Your task to perform on an android device: Check the news Image 0: 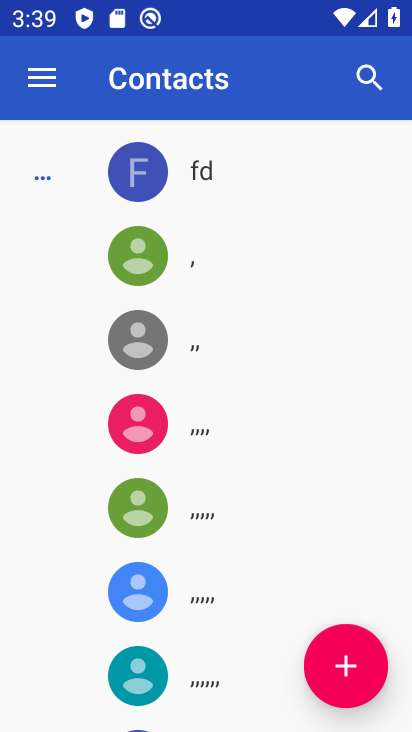
Step 0: press back button
Your task to perform on an android device: Check the news Image 1: 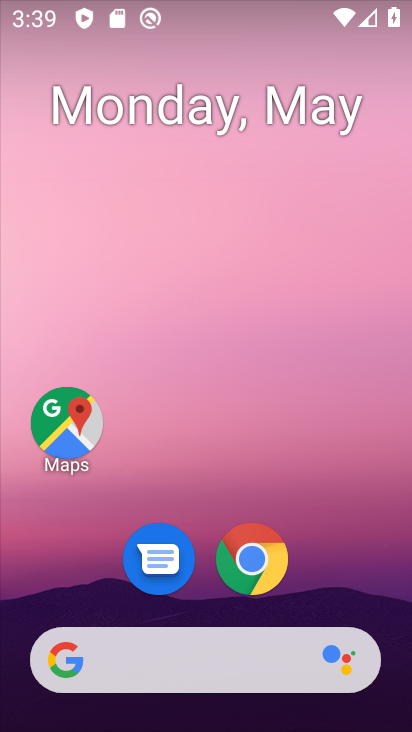
Step 1: drag from (67, 239) to (399, 486)
Your task to perform on an android device: Check the news Image 2: 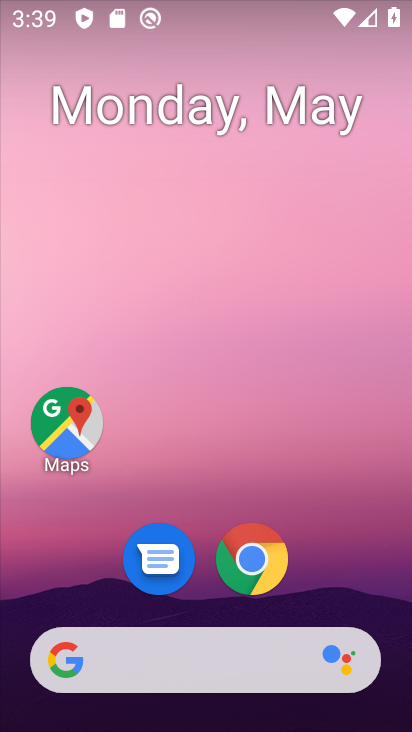
Step 2: drag from (4, 221) to (411, 429)
Your task to perform on an android device: Check the news Image 3: 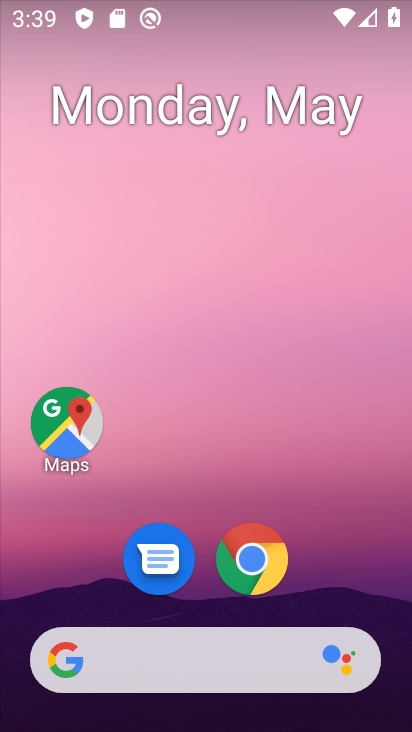
Step 3: drag from (0, 166) to (406, 404)
Your task to perform on an android device: Check the news Image 4: 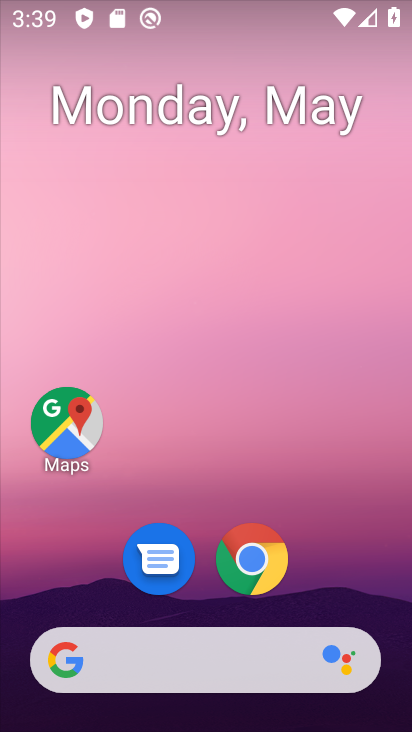
Step 4: drag from (133, 327) to (395, 520)
Your task to perform on an android device: Check the news Image 5: 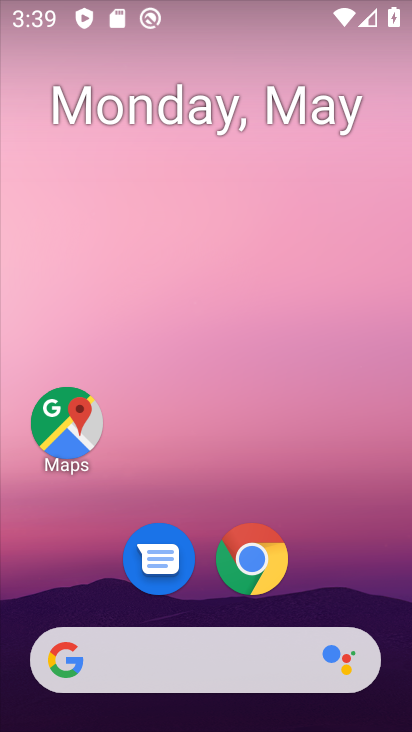
Step 5: drag from (7, 252) to (382, 494)
Your task to perform on an android device: Check the news Image 6: 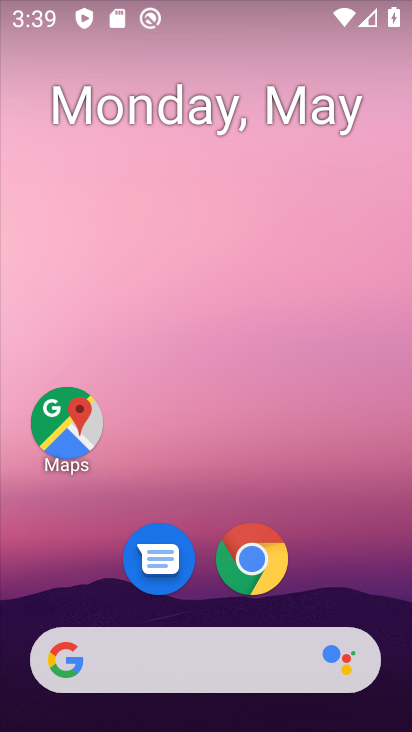
Step 6: drag from (15, 233) to (208, 465)
Your task to perform on an android device: Check the news Image 7: 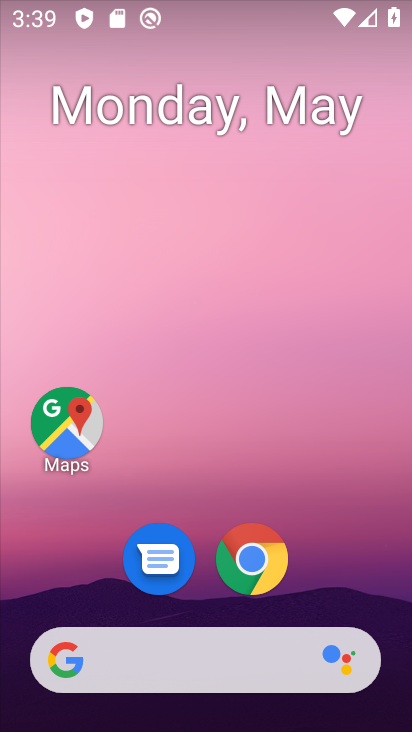
Step 7: drag from (22, 211) to (349, 457)
Your task to perform on an android device: Check the news Image 8: 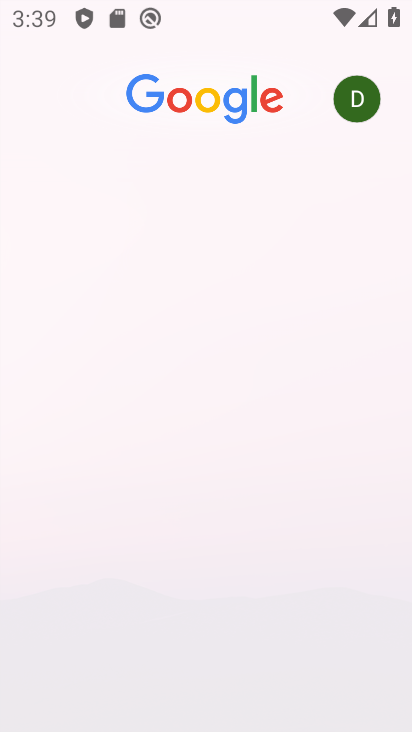
Step 8: drag from (6, 192) to (339, 500)
Your task to perform on an android device: Check the news Image 9: 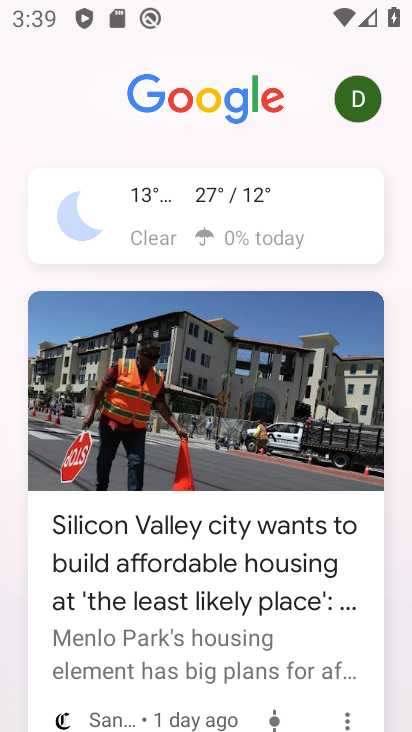
Step 9: drag from (217, 587) to (228, 197)
Your task to perform on an android device: Check the news Image 10: 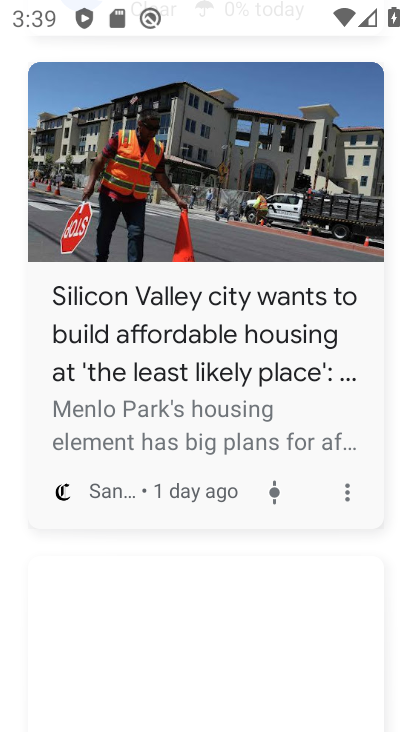
Step 10: drag from (225, 393) to (216, 343)
Your task to perform on an android device: Check the news Image 11: 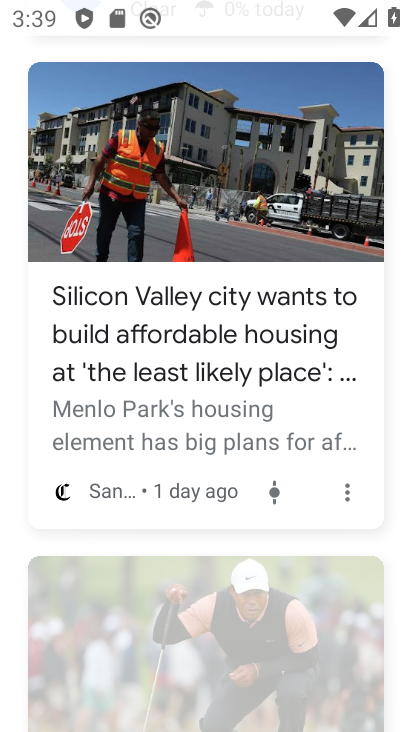
Step 11: drag from (208, 495) to (233, 257)
Your task to perform on an android device: Check the news Image 12: 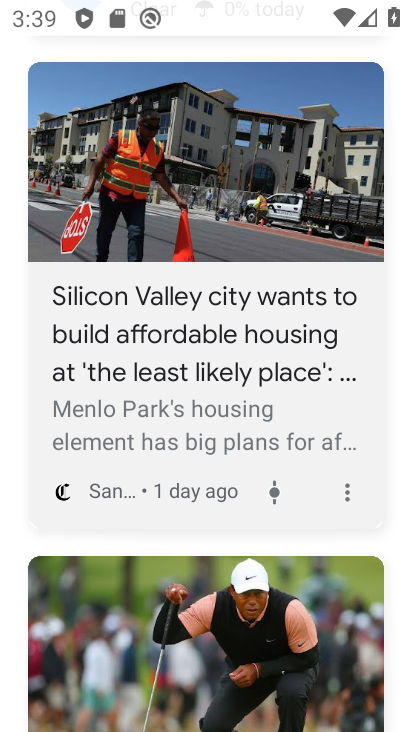
Step 12: drag from (227, 386) to (227, 275)
Your task to perform on an android device: Check the news Image 13: 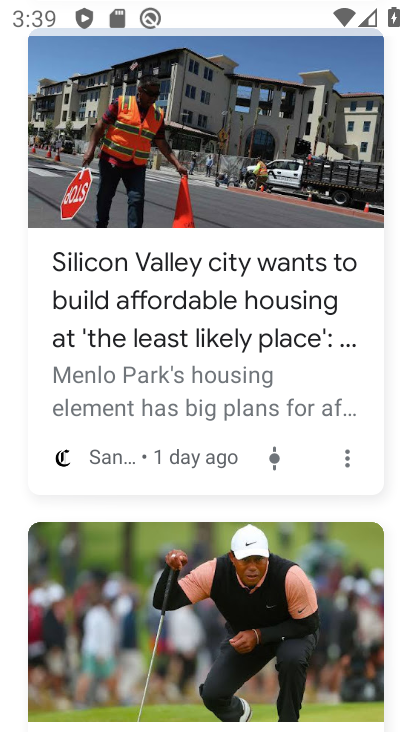
Step 13: drag from (215, 486) to (233, 176)
Your task to perform on an android device: Check the news Image 14: 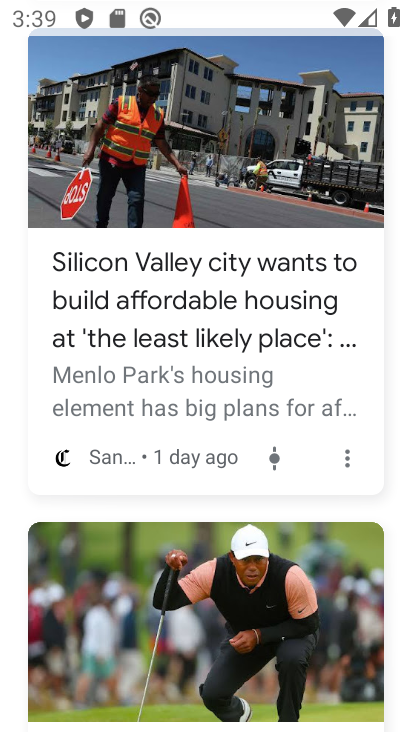
Step 14: drag from (227, 517) to (188, 243)
Your task to perform on an android device: Check the news Image 15: 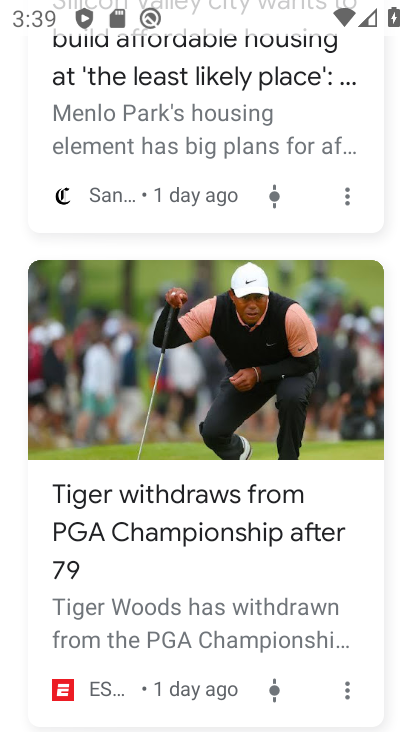
Step 15: drag from (224, 553) to (238, 281)
Your task to perform on an android device: Check the news Image 16: 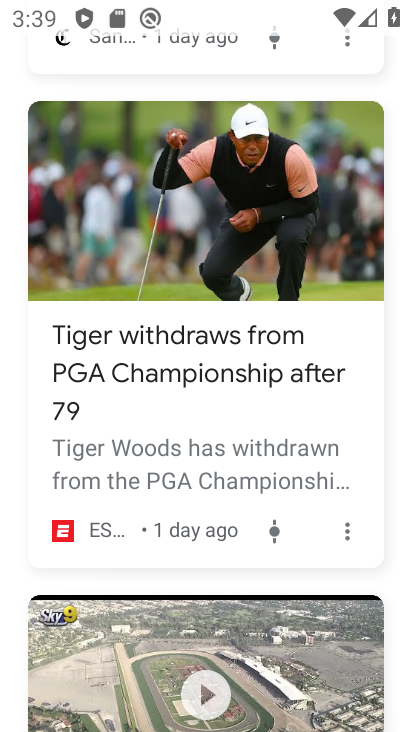
Step 16: drag from (247, 315) to (247, 238)
Your task to perform on an android device: Check the news Image 17: 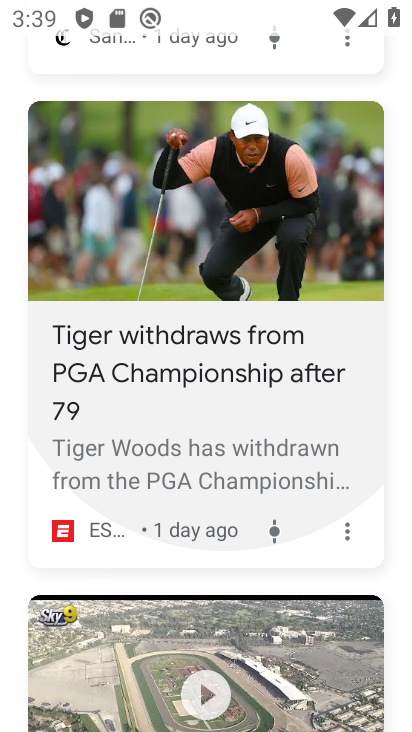
Step 17: click (290, 268)
Your task to perform on an android device: Check the news Image 18: 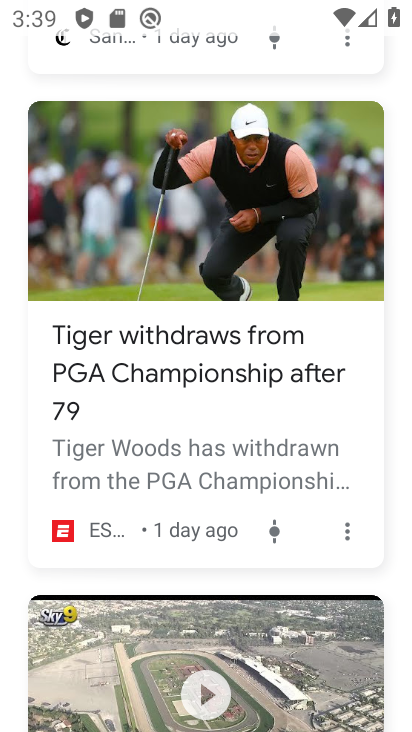
Step 18: drag from (258, 518) to (338, 295)
Your task to perform on an android device: Check the news Image 19: 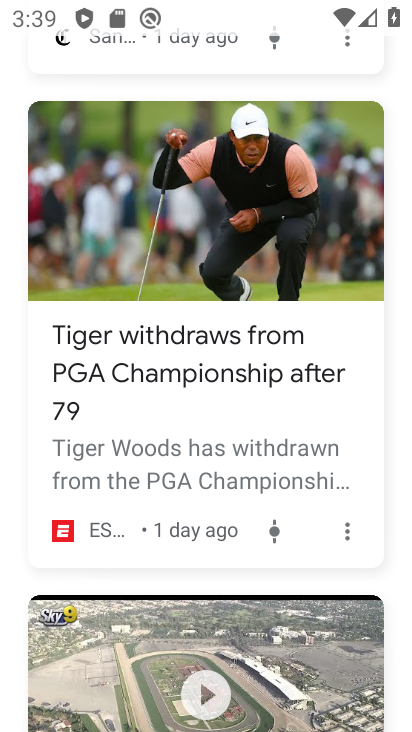
Step 19: click (244, 288)
Your task to perform on an android device: Check the news Image 20: 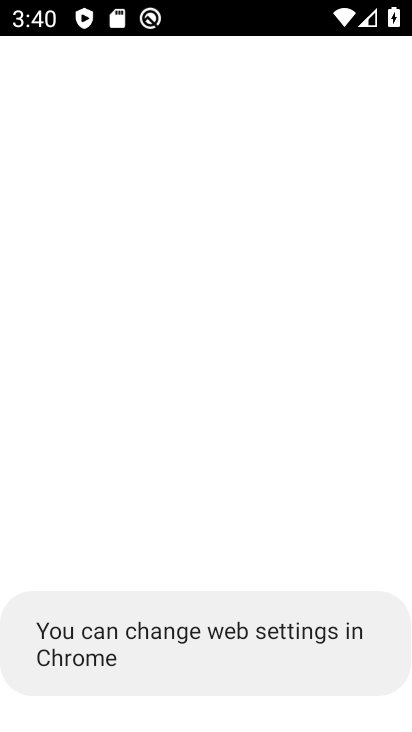
Step 20: task complete